Your task to perform on an android device: What's on my calendar today? Image 0: 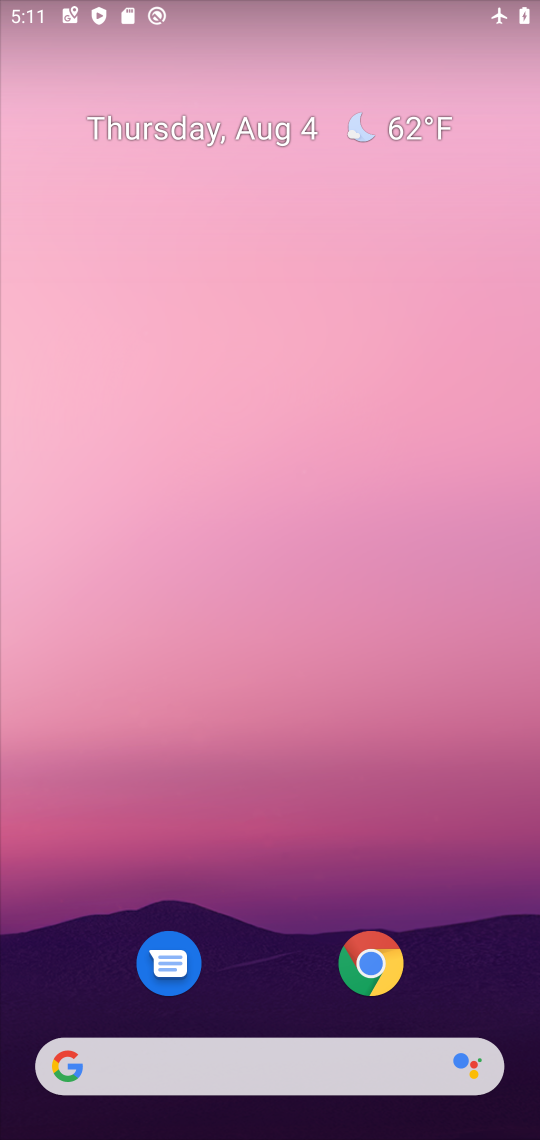
Step 0: drag from (270, 840) to (272, 39)
Your task to perform on an android device: What's on my calendar today? Image 1: 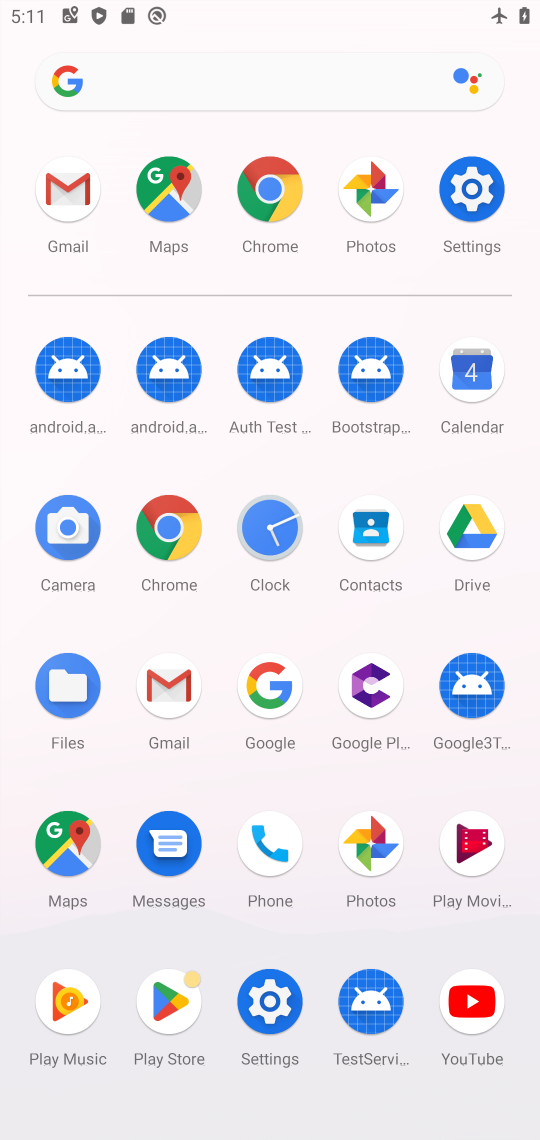
Step 1: click (487, 367)
Your task to perform on an android device: What's on my calendar today? Image 2: 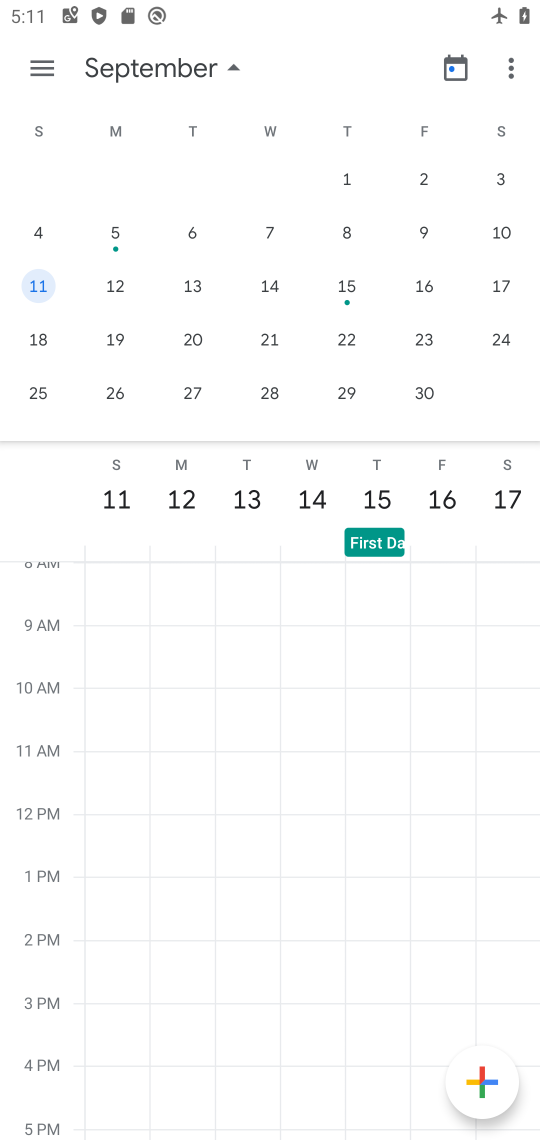
Step 2: drag from (55, 239) to (531, 281)
Your task to perform on an android device: What's on my calendar today? Image 3: 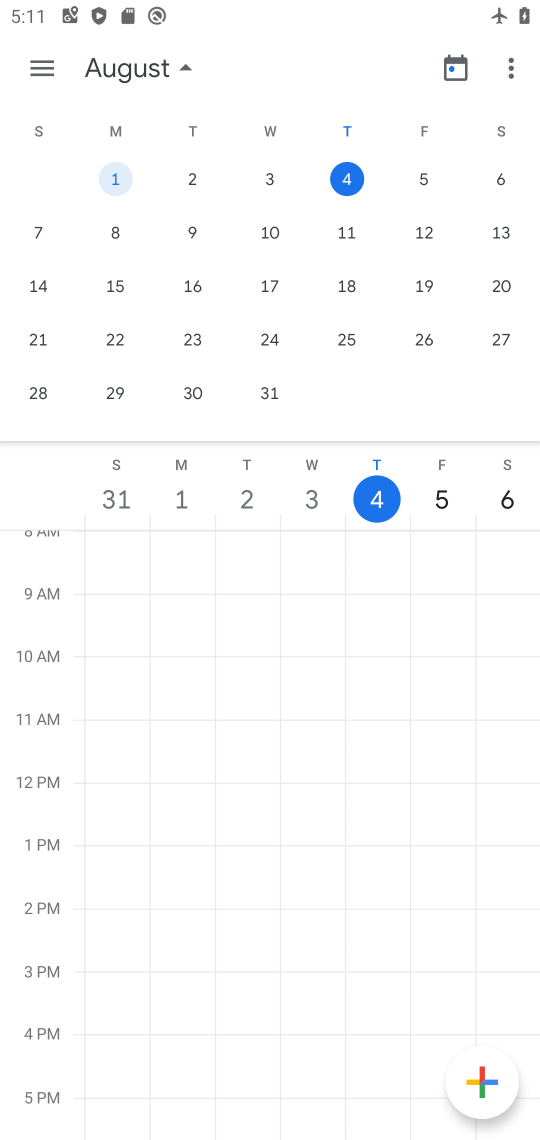
Step 3: click (347, 175)
Your task to perform on an android device: What's on my calendar today? Image 4: 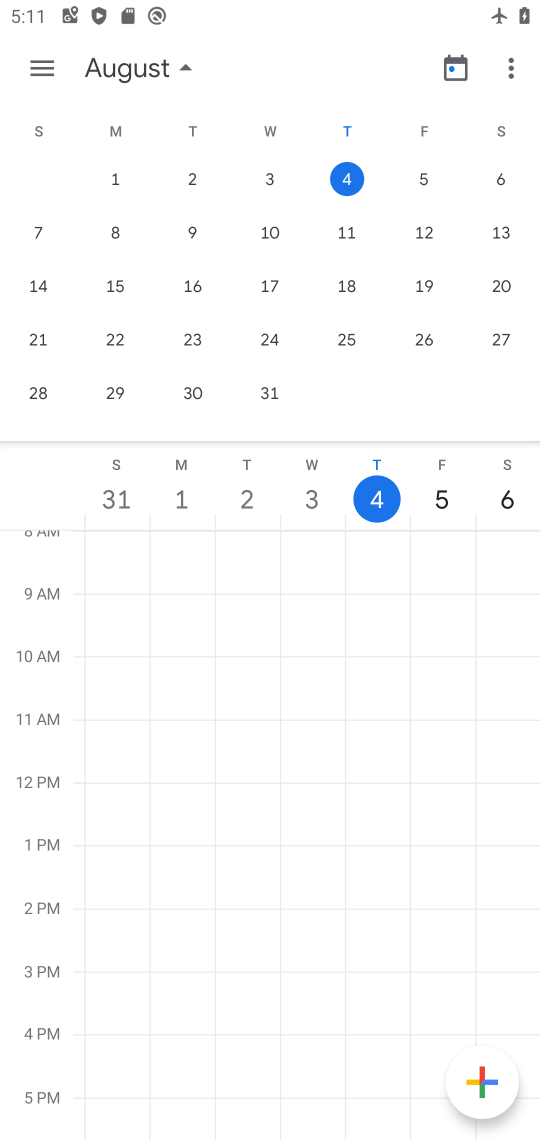
Step 4: click (372, 494)
Your task to perform on an android device: What's on my calendar today? Image 5: 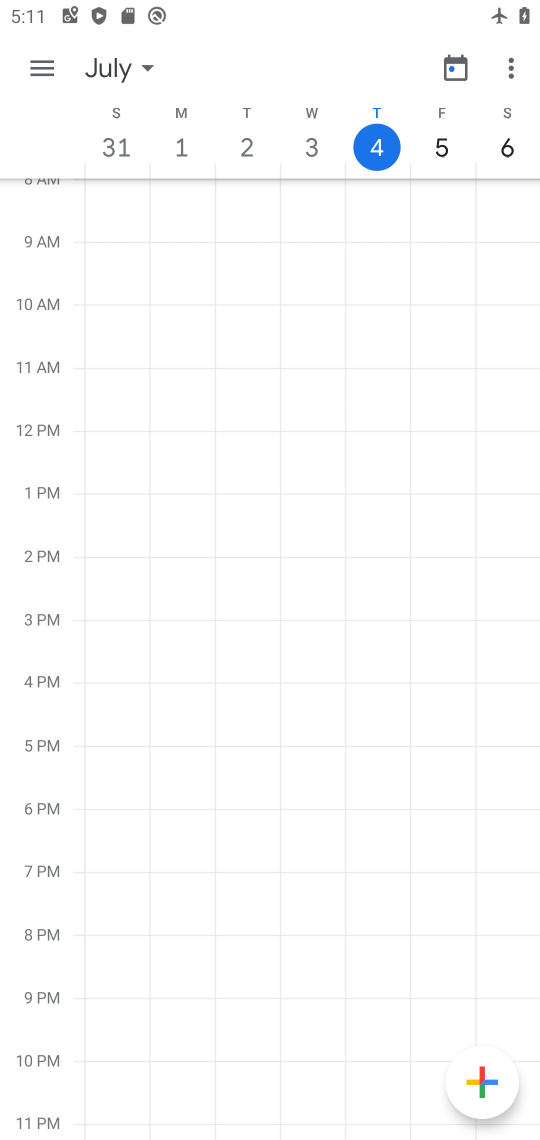
Step 5: click (376, 146)
Your task to perform on an android device: What's on my calendar today? Image 6: 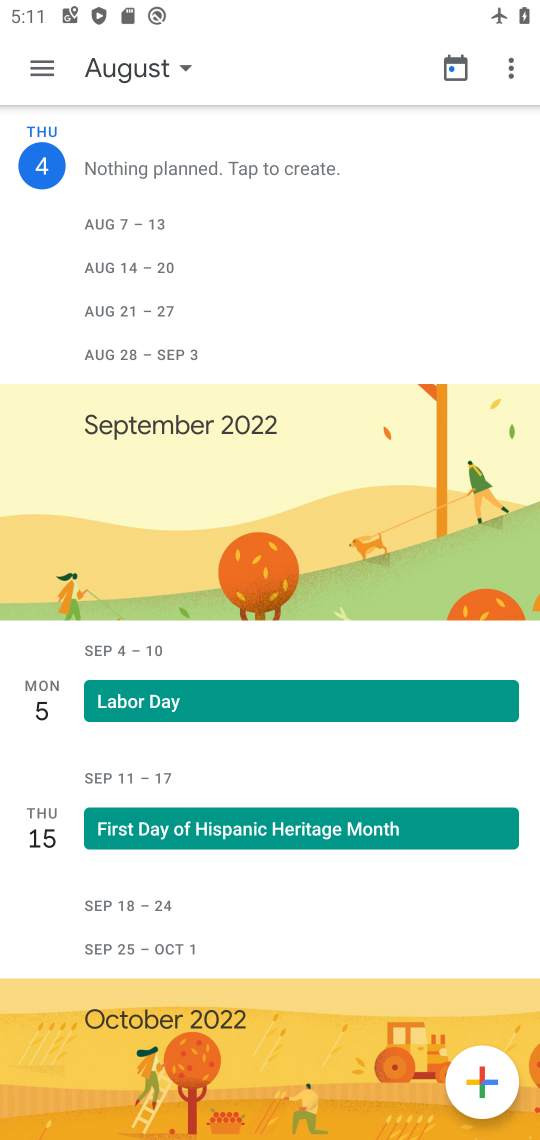
Step 6: task complete